Your task to perform on an android device: Go to Yahoo.com Image 0: 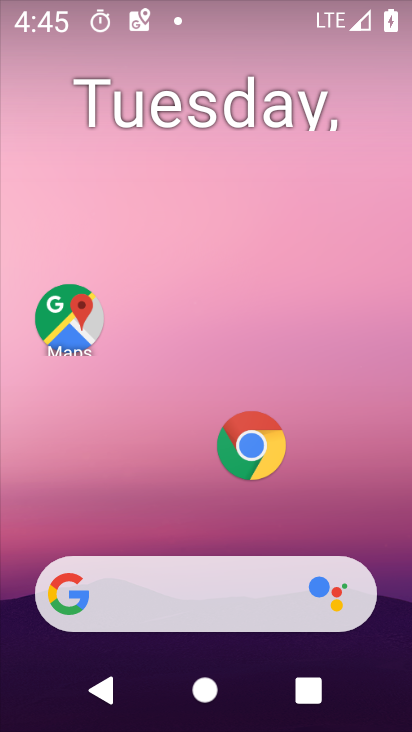
Step 0: click (266, 447)
Your task to perform on an android device: Go to Yahoo.com Image 1: 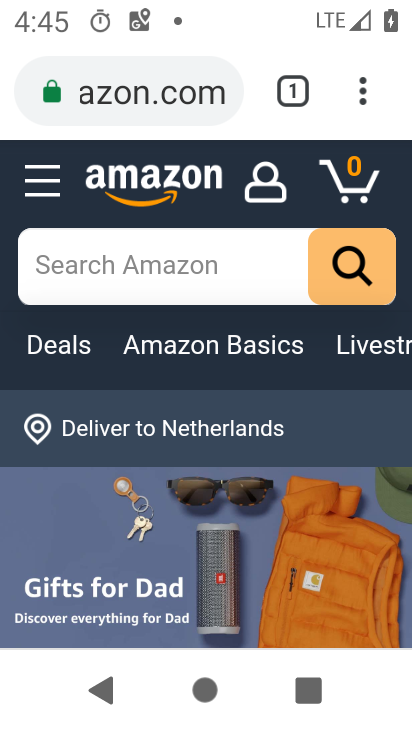
Step 1: click (141, 102)
Your task to perform on an android device: Go to Yahoo.com Image 2: 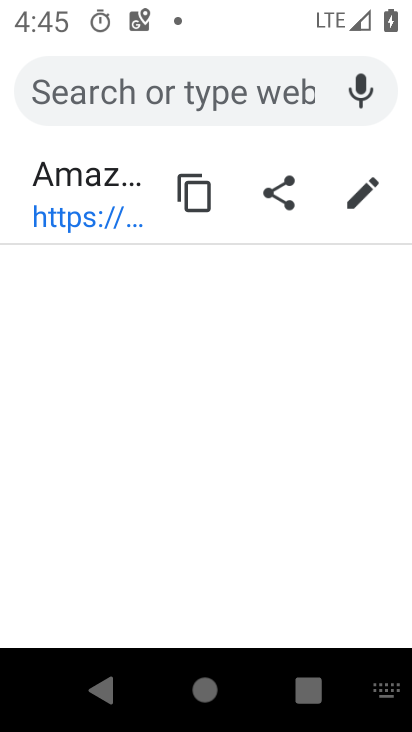
Step 2: type "yahoo.com"
Your task to perform on an android device: Go to Yahoo.com Image 3: 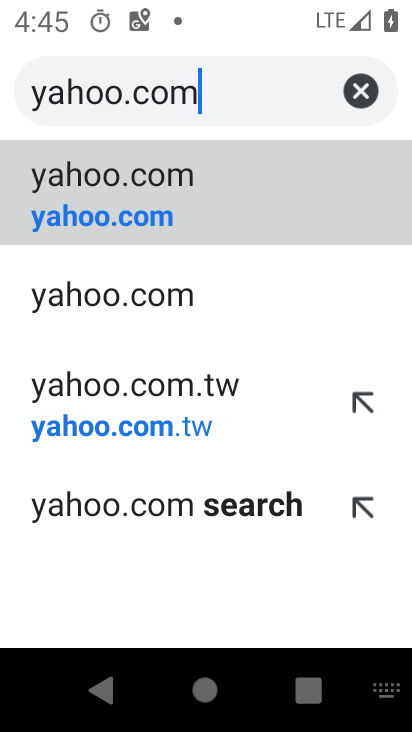
Step 3: click (213, 219)
Your task to perform on an android device: Go to Yahoo.com Image 4: 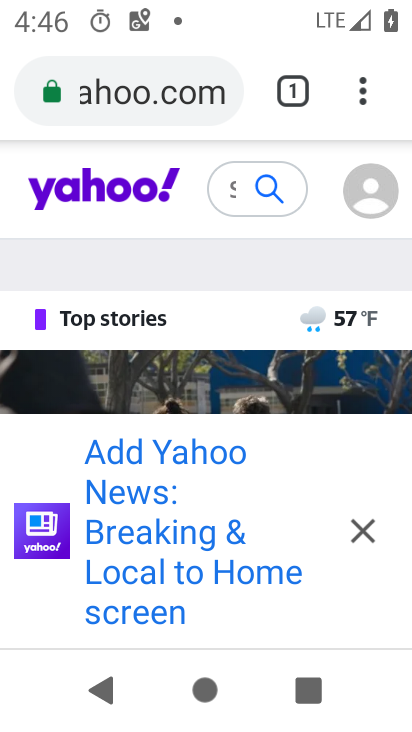
Step 4: task complete